Your task to perform on an android device: open sync settings in chrome Image 0: 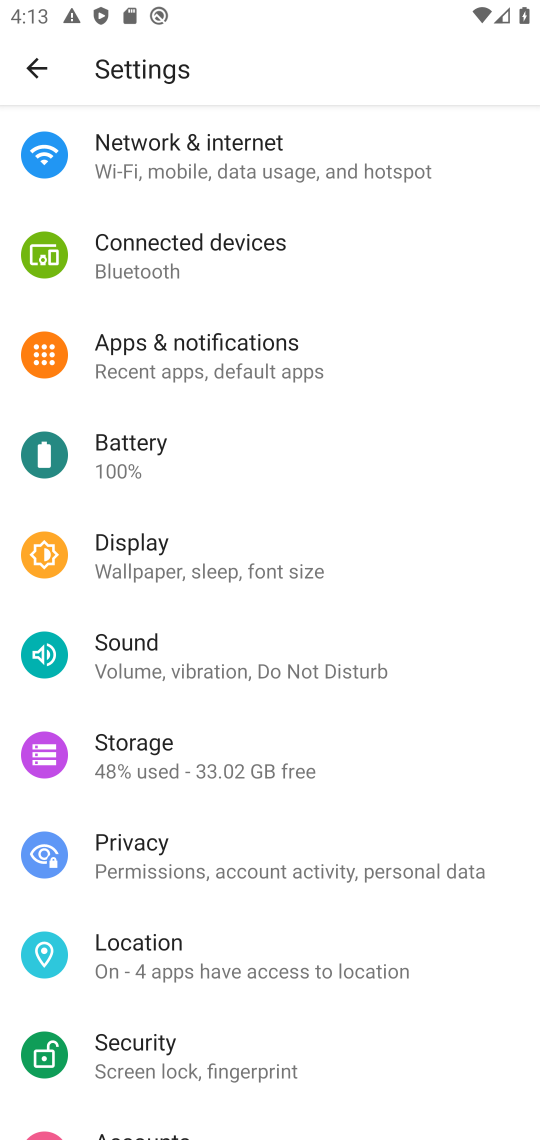
Step 0: press home button
Your task to perform on an android device: open sync settings in chrome Image 1: 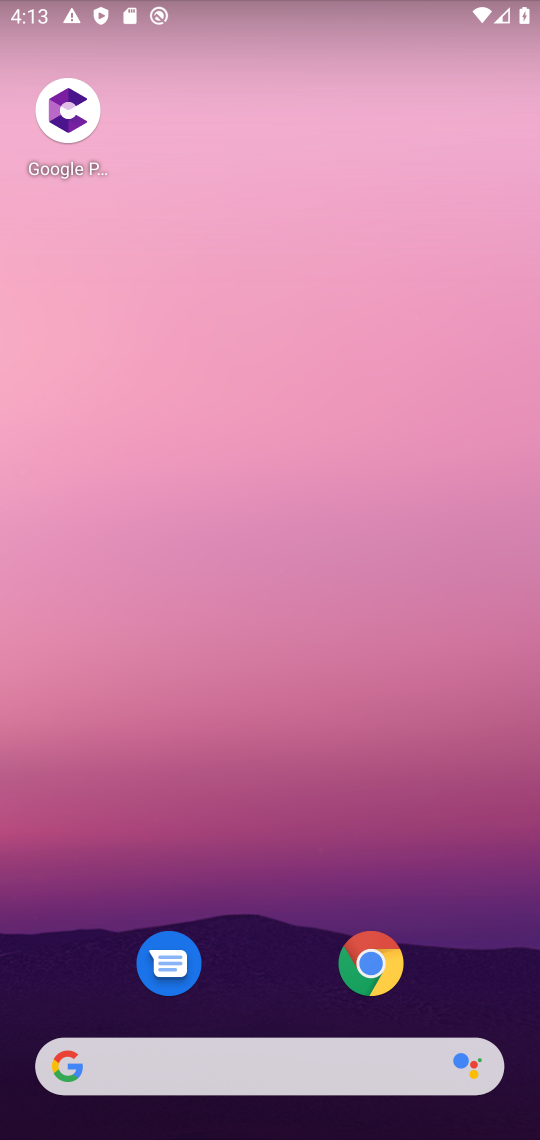
Step 1: click (450, 106)
Your task to perform on an android device: open sync settings in chrome Image 2: 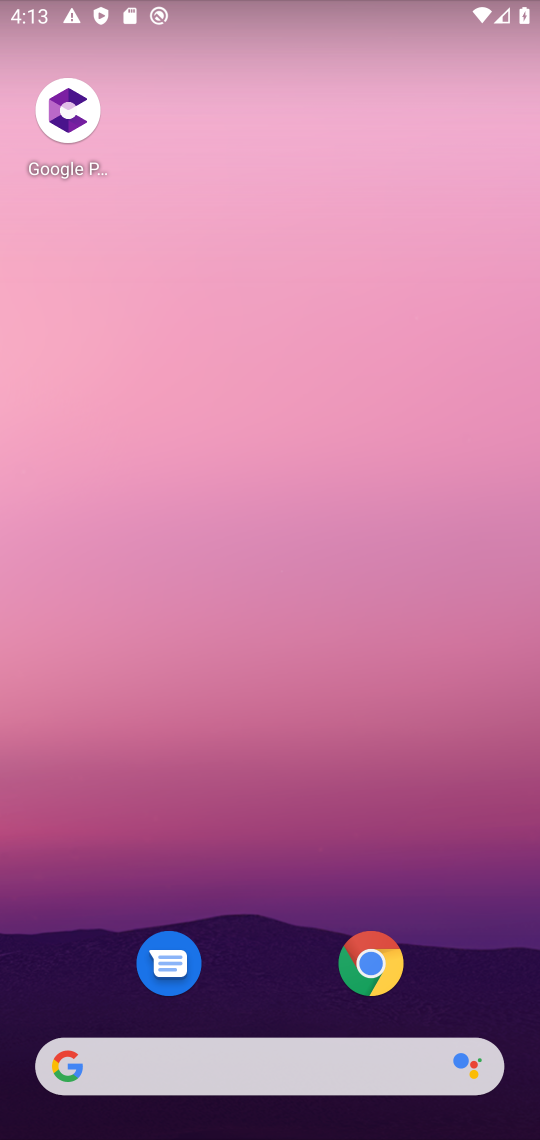
Step 2: drag from (285, 968) to (398, 189)
Your task to perform on an android device: open sync settings in chrome Image 3: 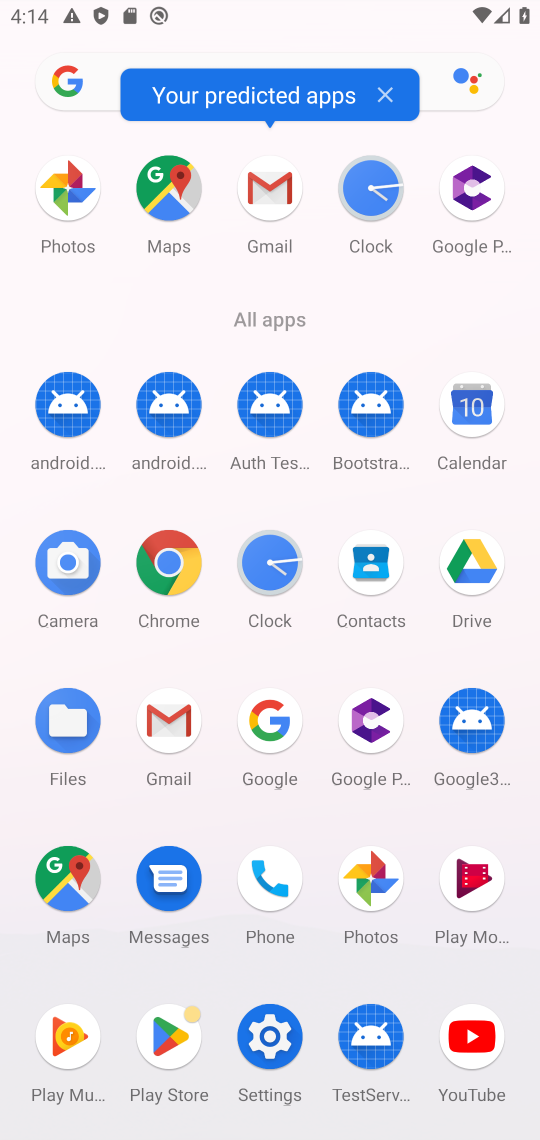
Step 3: click (173, 564)
Your task to perform on an android device: open sync settings in chrome Image 4: 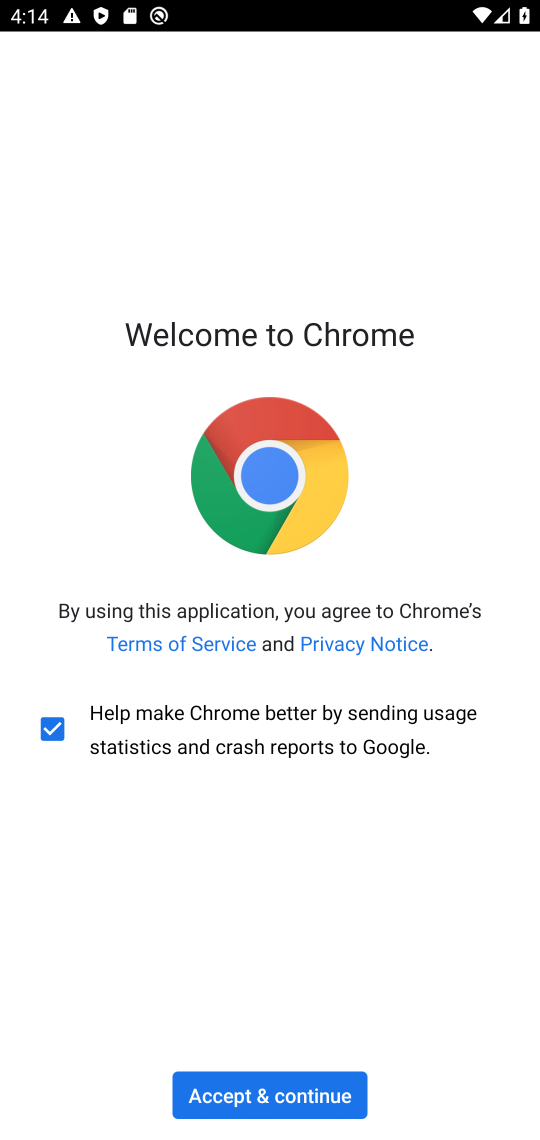
Step 4: click (296, 1107)
Your task to perform on an android device: open sync settings in chrome Image 5: 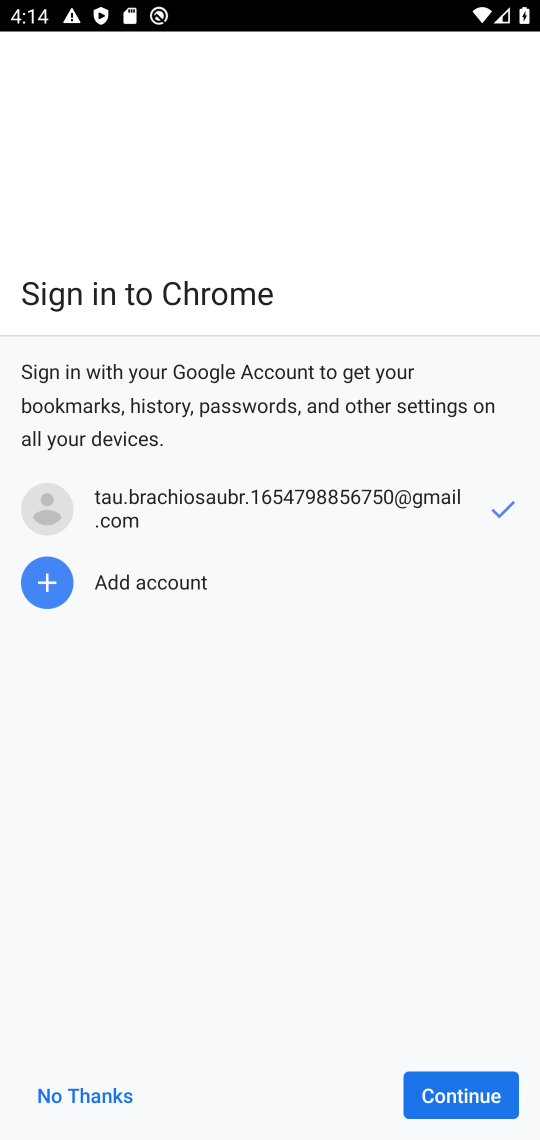
Step 5: click (511, 1079)
Your task to perform on an android device: open sync settings in chrome Image 6: 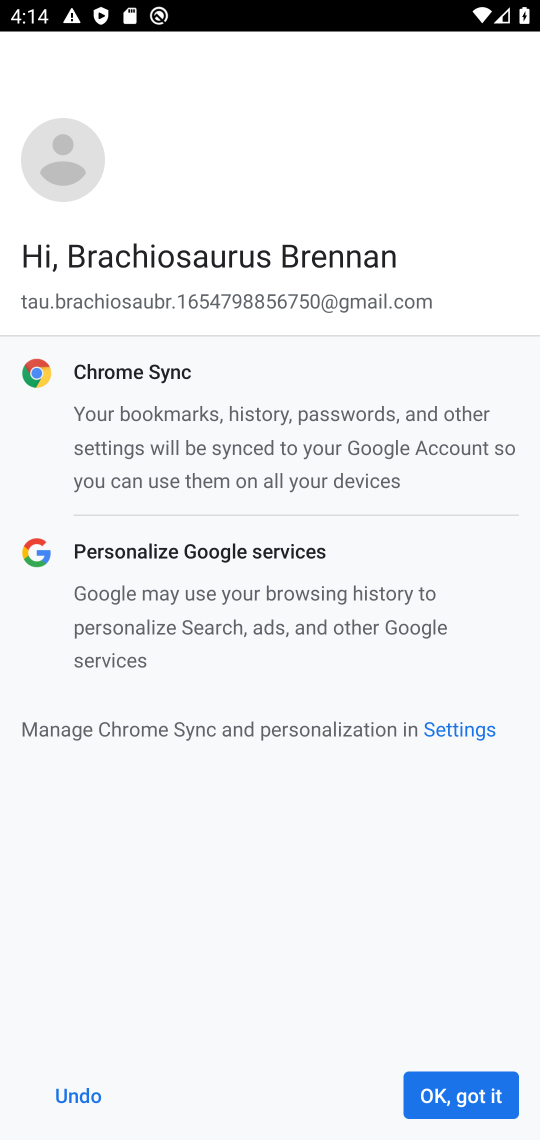
Step 6: click (511, 1079)
Your task to perform on an android device: open sync settings in chrome Image 7: 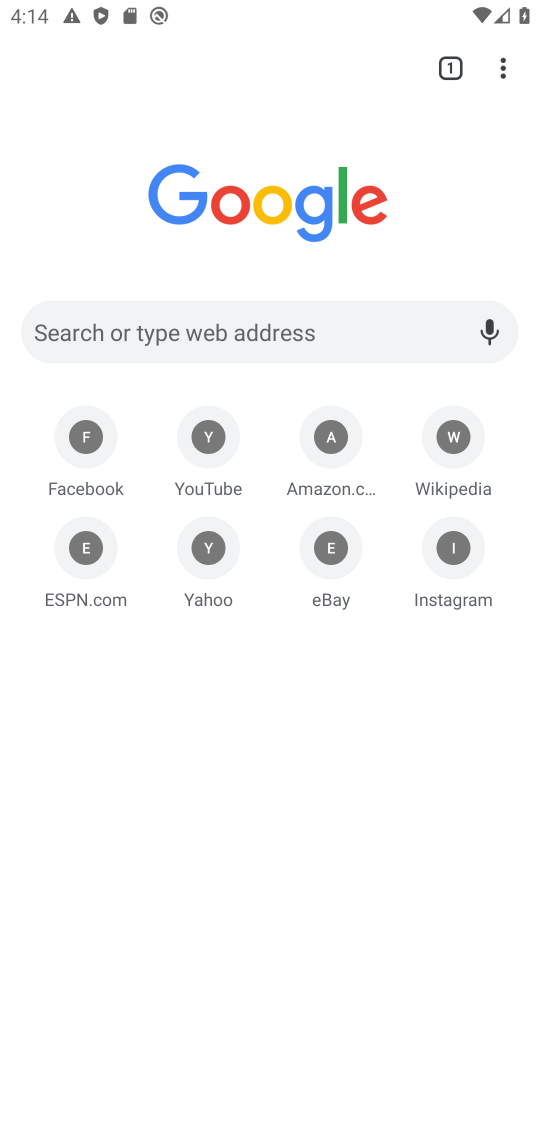
Step 7: drag from (501, 67) to (253, 569)
Your task to perform on an android device: open sync settings in chrome Image 8: 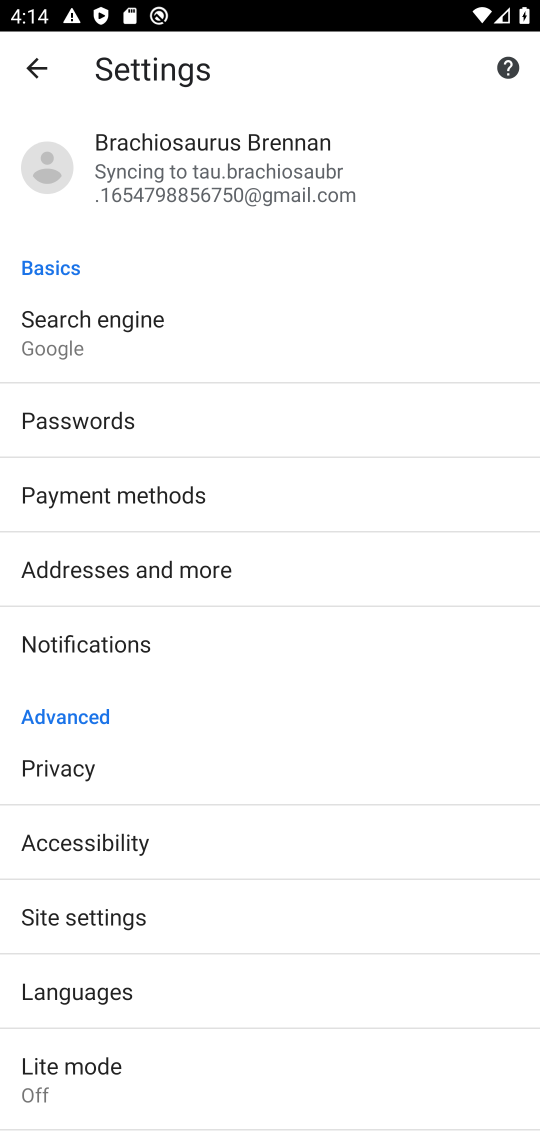
Step 8: click (127, 139)
Your task to perform on an android device: open sync settings in chrome Image 9: 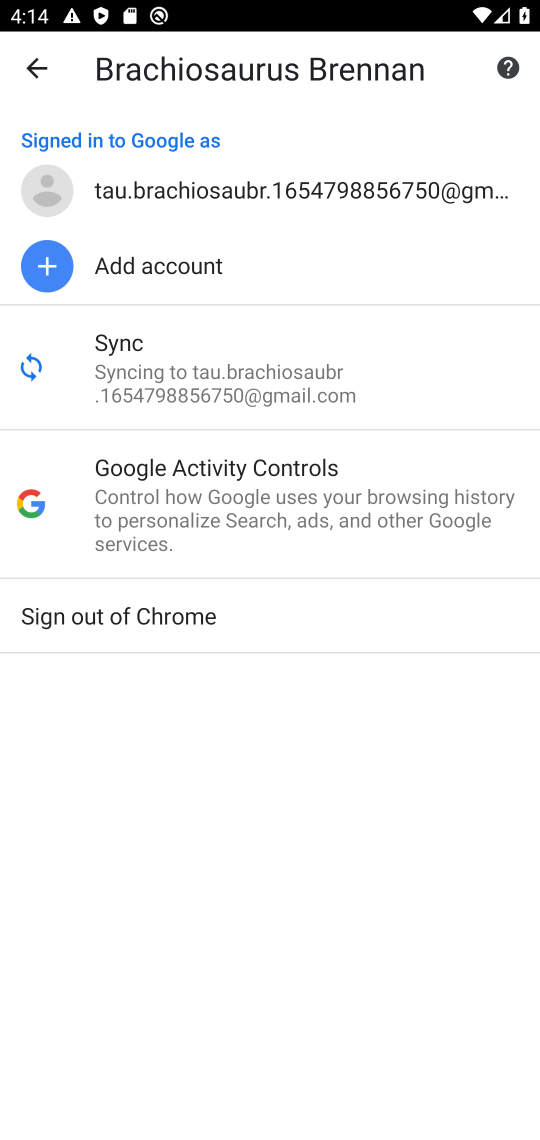
Step 9: click (143, 369)
Your task to perform on an android device: open sync settings in chrome Image 10: 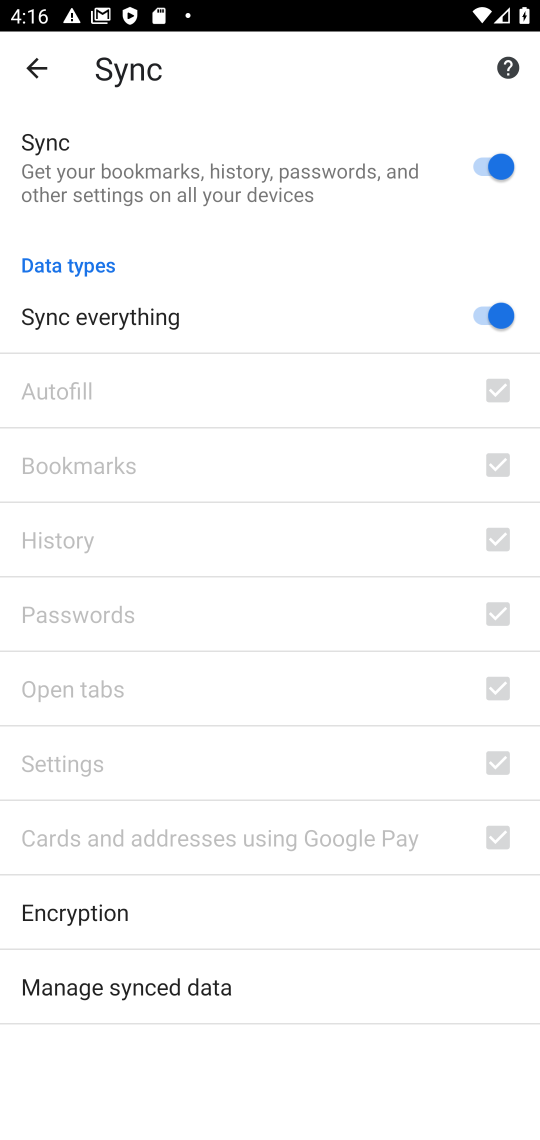
Step 10: task complete